Your task to perform on an android device: Empty the shopping cart on newegg. Search for "bose soundsport free" on newegg, select the first entry, and add it to the cart. Image 0: 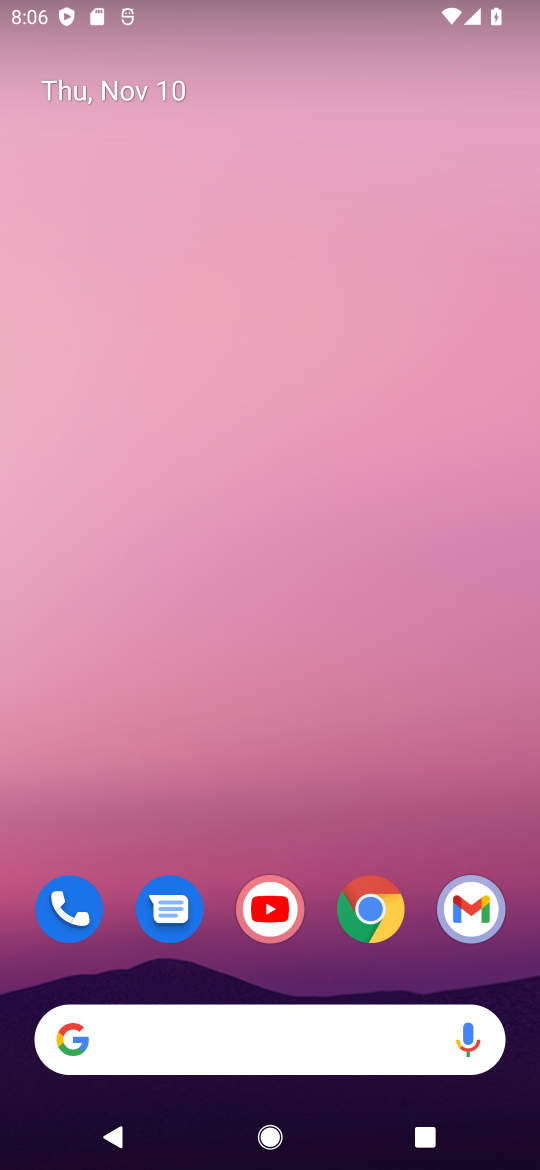
Step 0: drag from (138, 1034) to (205, 495)
Your task to perform on an android device: Empty the shopping cart on newegg. Search for "bose soundsport free" on newegg, select the first entry, and add it to the cart. Image 1: 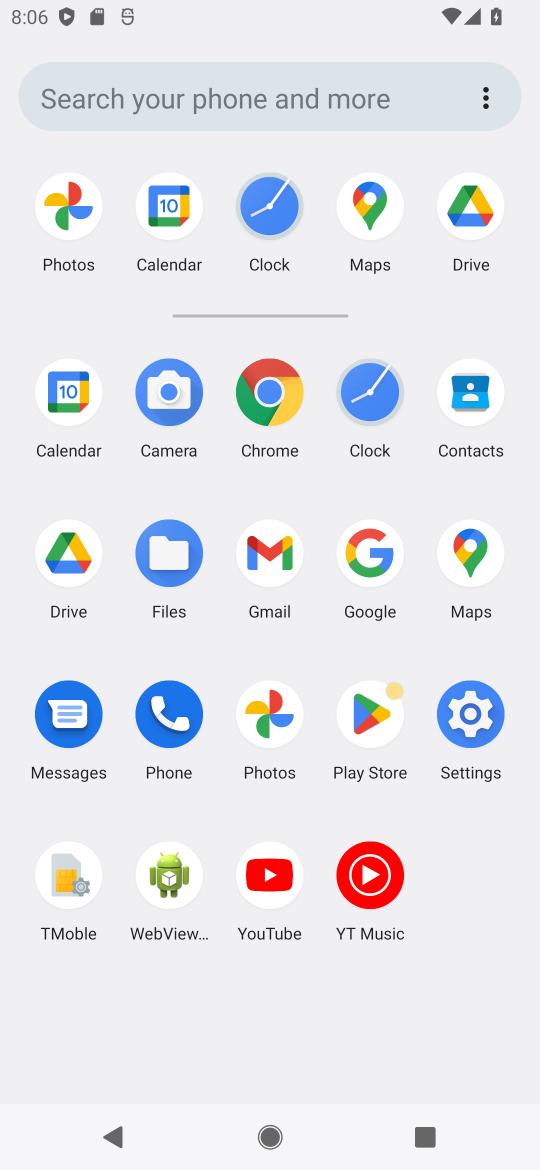
Step 1: click (363, 537)
Your task to perform on an android device: Empty the shopping cart on newegg. Search for "bose soundsport free" on newegg, select the first entry, and add it to the cart. Image 2: 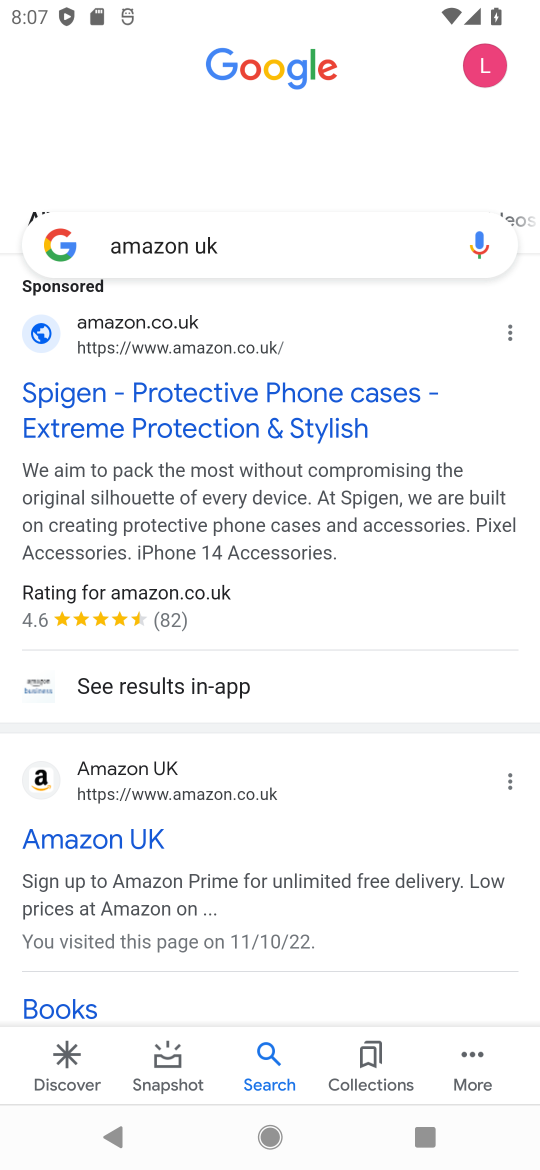
Step 2: click (296, 238)
Your task to perform on an android device: Empty the shopping cart on newegg. Search for "bose soundsport free" on newegg, select the first entry, and add it to the cart. Image 3: 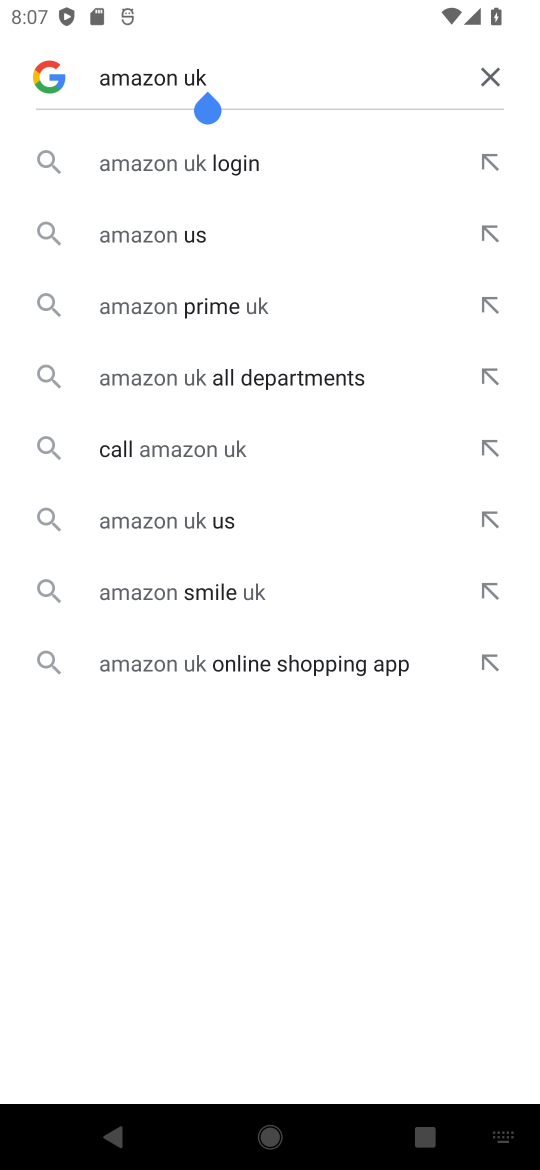
Step 3: click (485, 58)
Your task to perform on an android device: Empty the shopping cart on newegg. Search for "bose soundsport free" on newegg, select the first entry, and add it to the cart. Image 4: 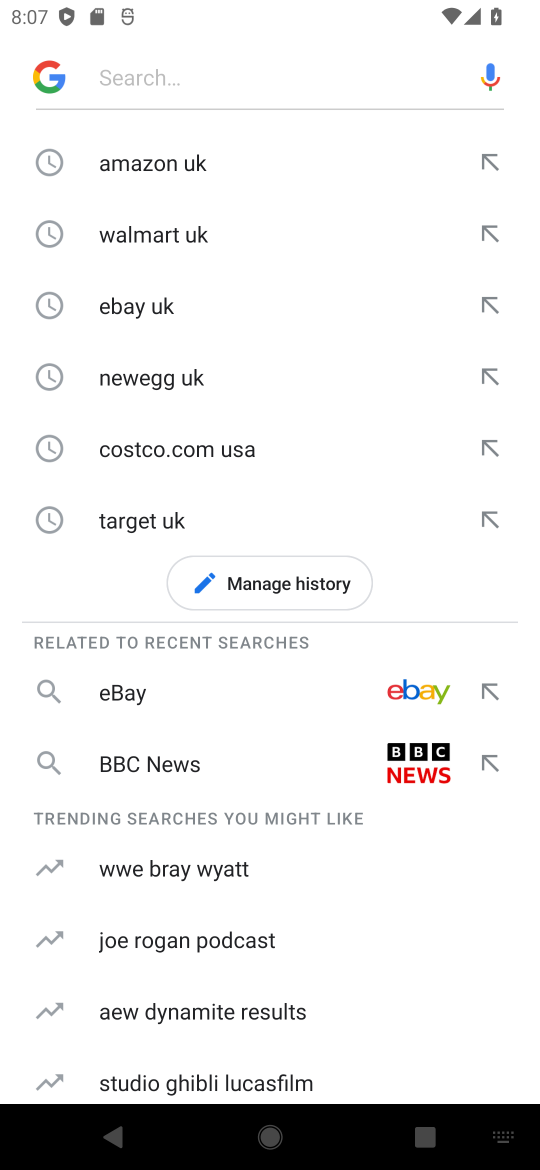
Step 4: click (229, 54)
Your task to perform on an android device: Empty the shopping cart on newegg. Search for "bose soundsport free" on newegg, select the first entry, and add it to the cart. Image 5: 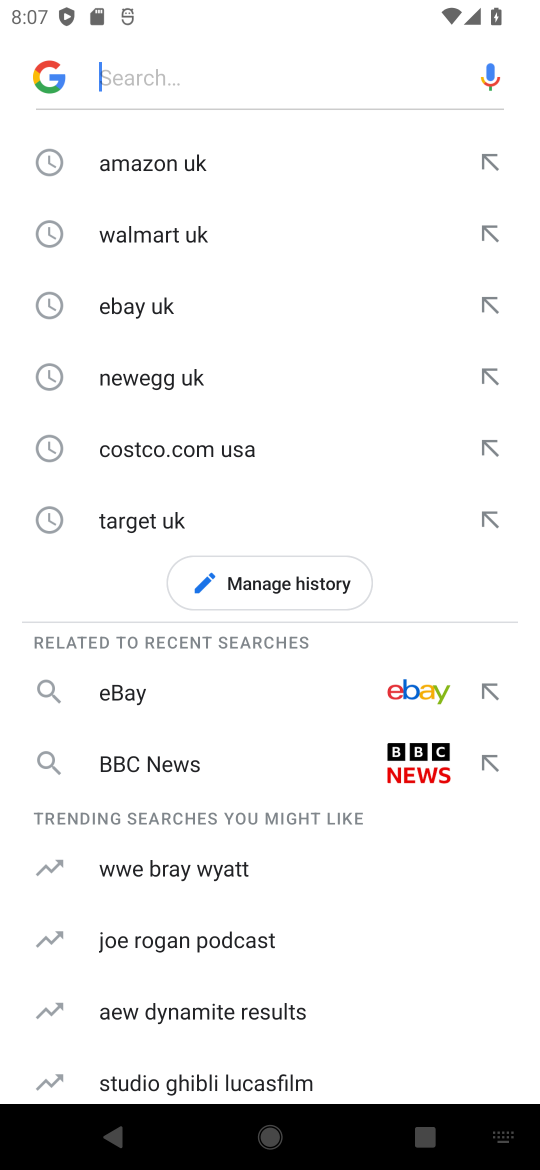
Step 5: type "newegg "
Your task to perform on an android device: Empty the shopping cart on newegg. Search for "bose soundsport free" on newegg, select the first entry, and add it to the cart. Image 6: 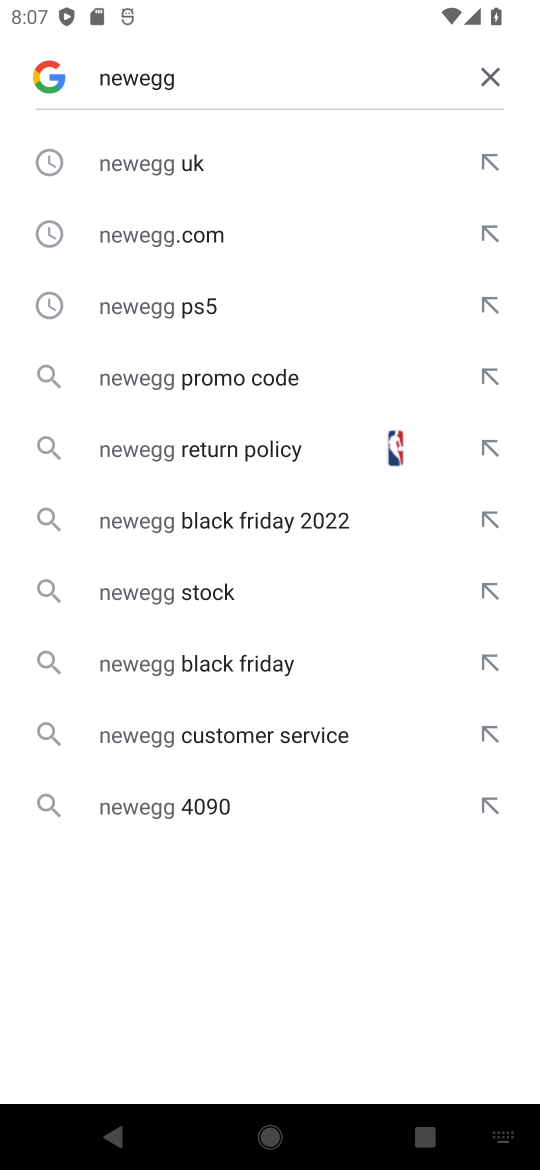
Step 6: click (186, 174)
Your task to perform on an android device: Empty the shopping cart on newegg. Search for "bose soundsport free" on newegg, select the first entry, and add it to the cart. Image 7: 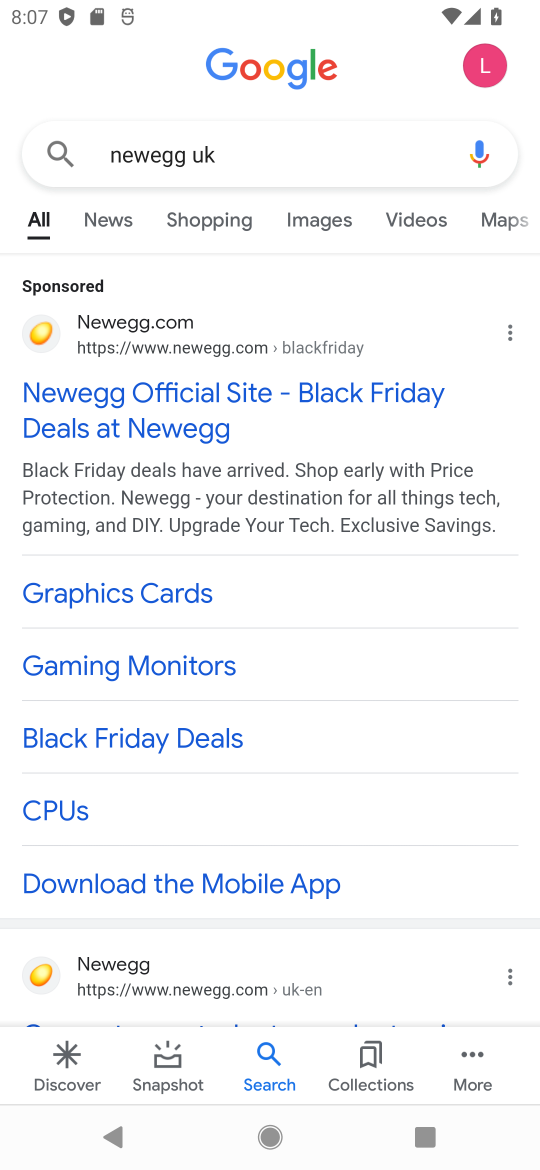
Step 7: click (42, 326)
Your task to perform on an android device: Empty the shopping cart on newegg. Search for "bose soundsport free" on newegg, select the first entry, and add it to the cart. Image 8: 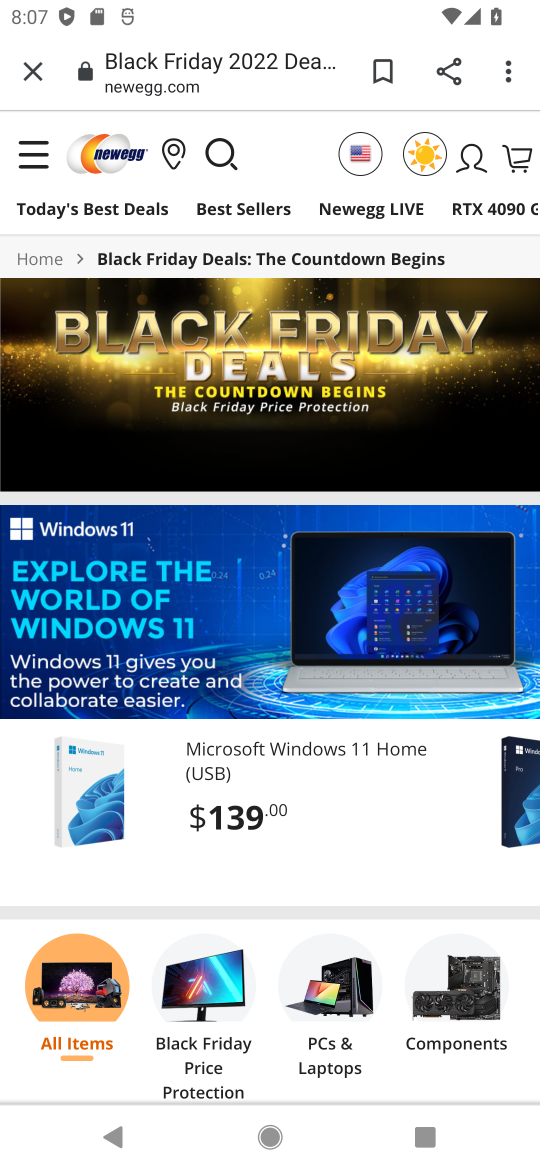
Step 8: click (210, 142)
Your task to perform on an android device: Empty the shopping cart on newegg. Search for "bose soundsport free" on newegg, select the first entry, and add it to the cart. Image 9: 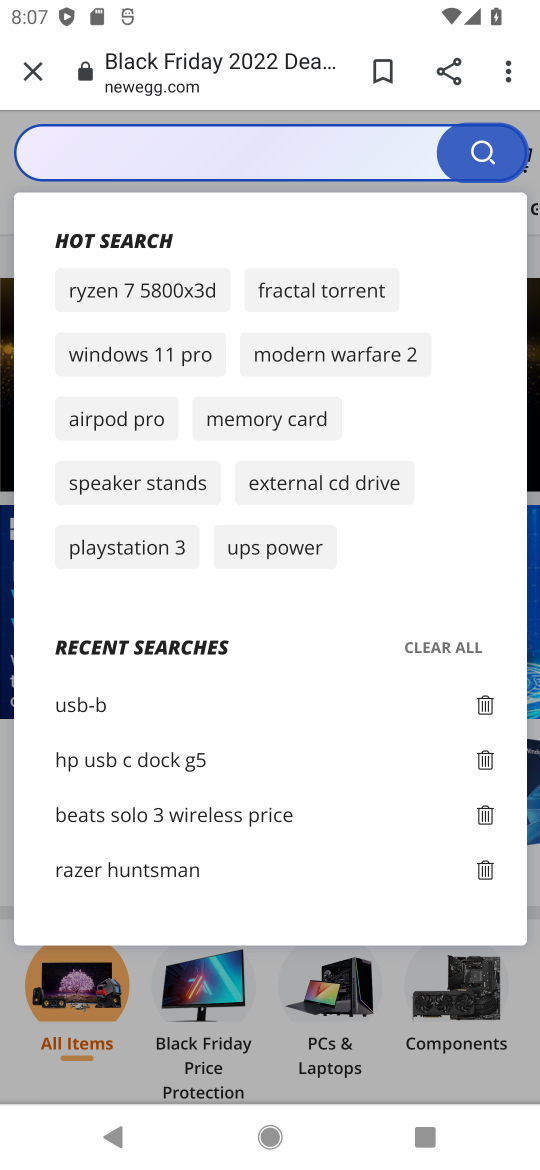
Step 9: click (289, 136)
Your task to perform on an android device: Empty the shopping cart on newegg. Search for "bose soundsport free" on newegg, select the first entry, and add it to the cart. Image 10: 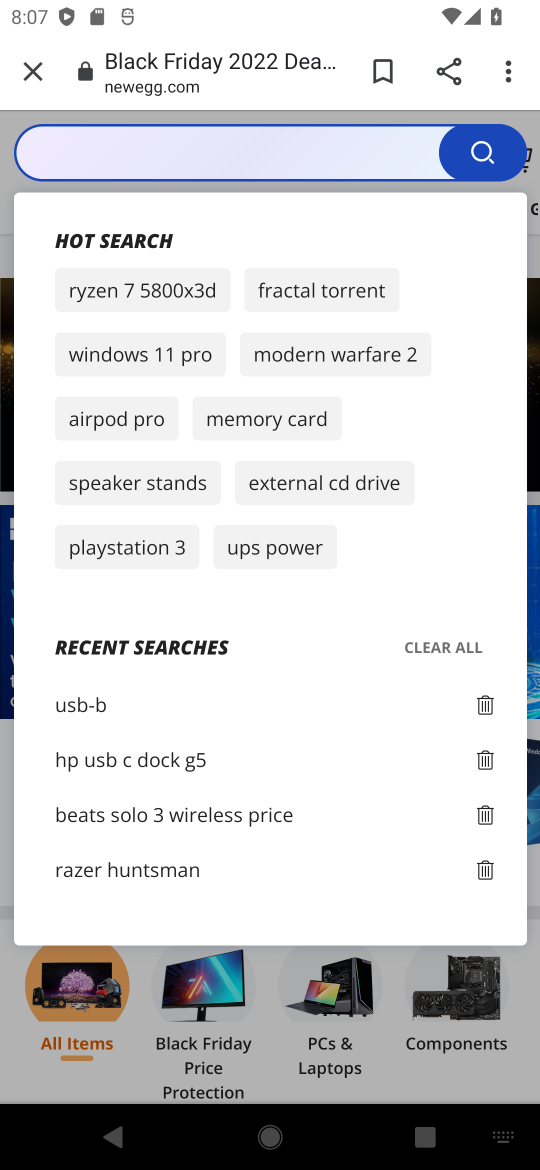
Step 10: type "bose soundsport free "
Your task to perform on an android device: Empty the shopping cart on newegg. Search for "bose soundsport free" on newegg, select the first entry, and add it to the cart. Image 11: 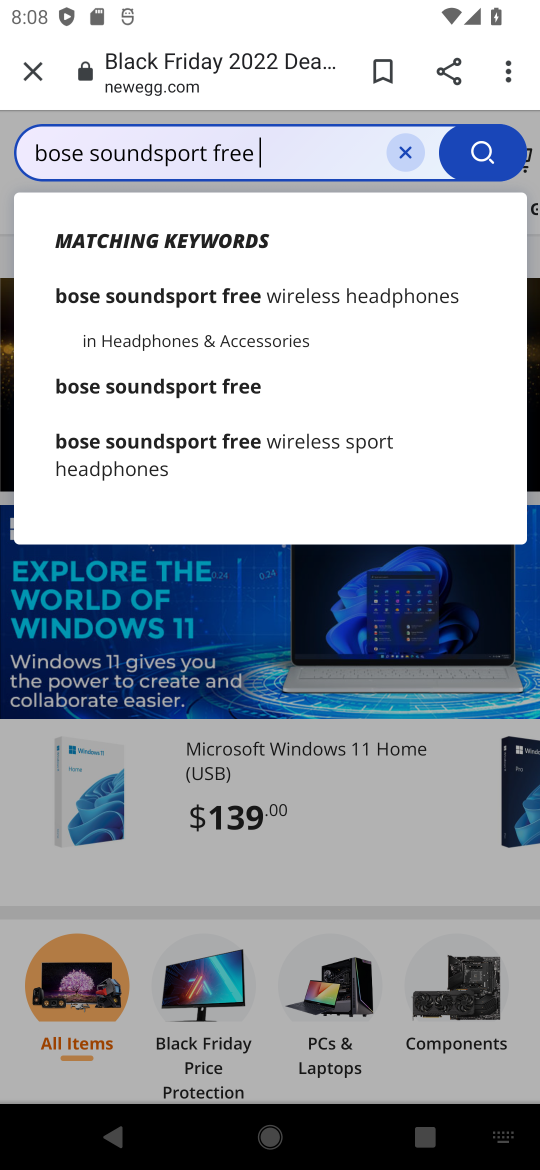
Step 11: click (217, 295)
Your task to perform on an android device: Empty the shopping cart on newegg. Search for "bose soundsport free" on newegg, select the first entry, and add it to the cart. Image 12: 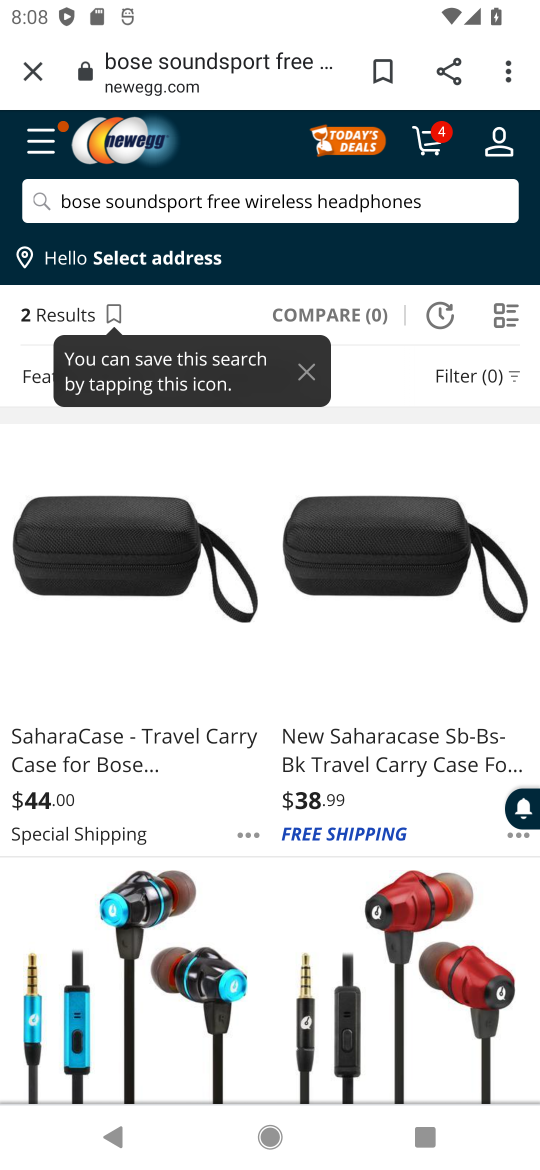
Step 12: drag from (219, 965) to (233, 315)
Your task to perform on an android device: Empty the shopping cart on newegg. Search for "bose soundsport free" on newegg, select the first entry, and add it to the cart. Image 13: 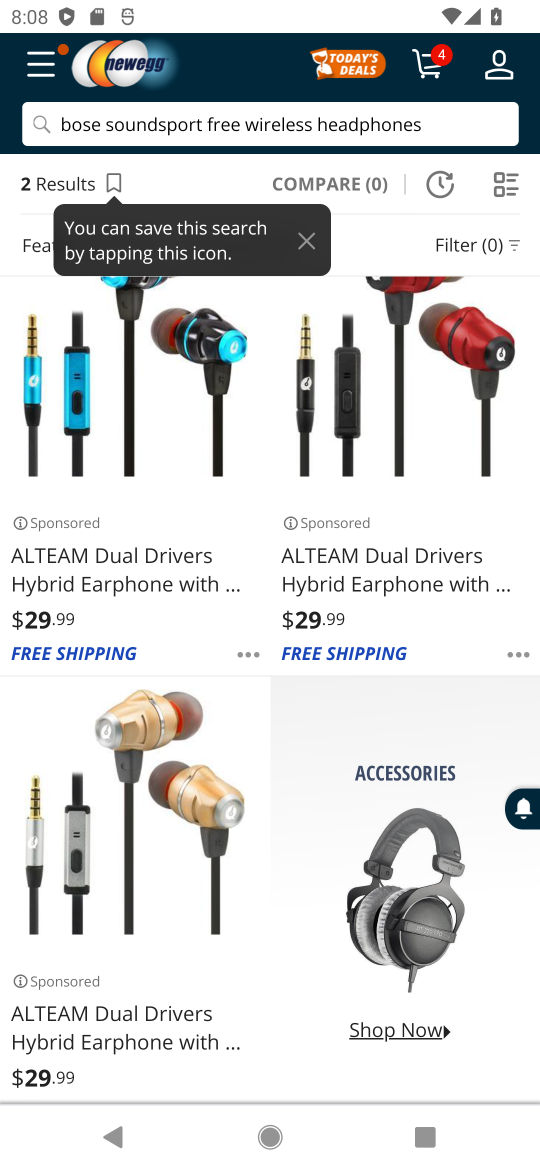
Step 13: drag from (278, 899) to (254, 264)
Your task to perform on an android device: Empty the shopping cart on newegg. Search for "bose soundsport free" on newegg, select the first entry, and add it to the cart. Image 14: 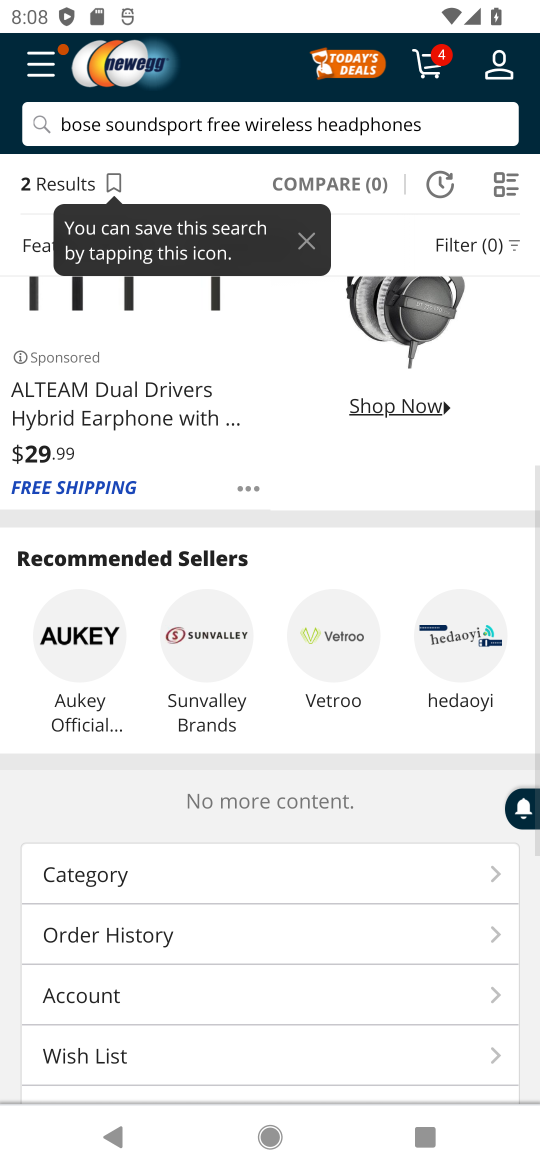
Step 14: drag from (329, 991) to (355, 239)
Your task to perform on an android device: Empty the shopping cart on newegg. Search for "bose soundsport free" on newegg, select the first entry, and add it to the cart. Image 15: 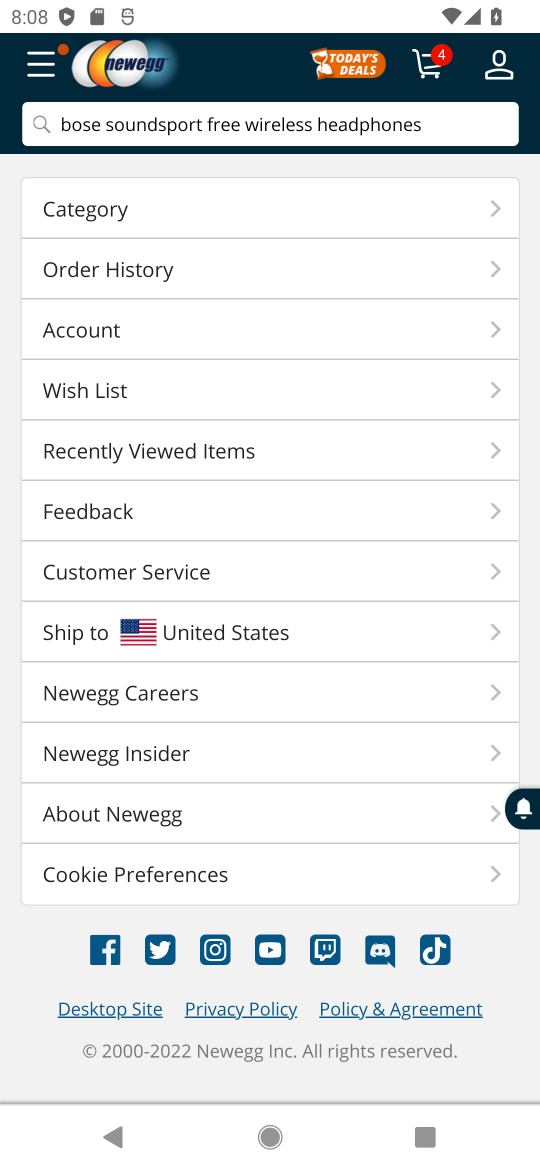
Step 15: click (445, 114)
Your task to perform on an android device: Empty the shopping cart on newegg. Search for "bose soundsport free" on newegg, select the first entry, and add it to the cart. Image 16: 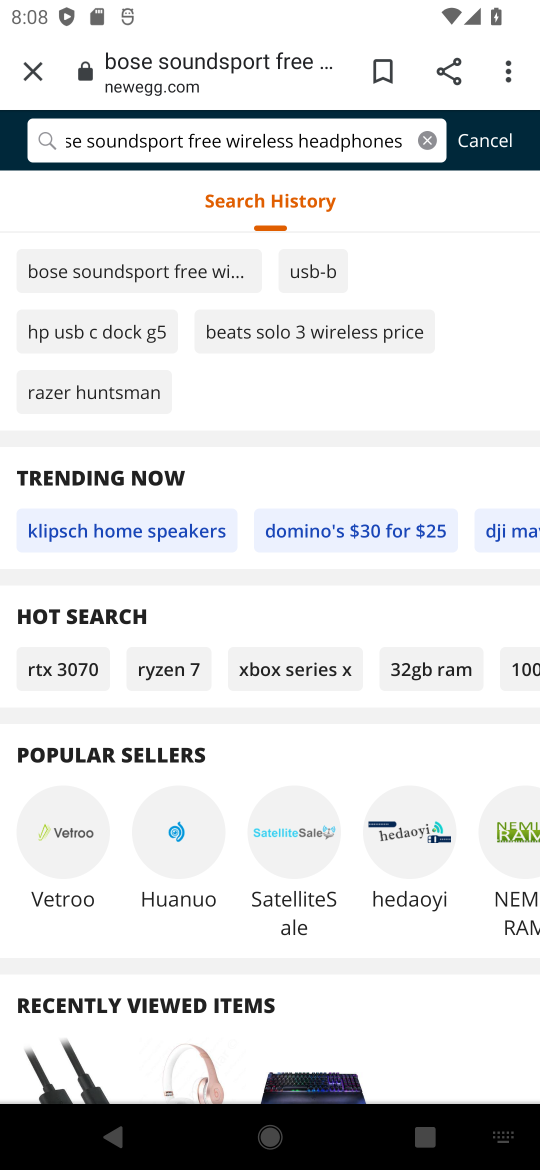
Step 16: click (424, 142)
Your task to perform on an android device: Empty the shopping cart on newegg. Search for "bose soundsport free" on newegg, select the first entry, and add it to the cart. Image 17: 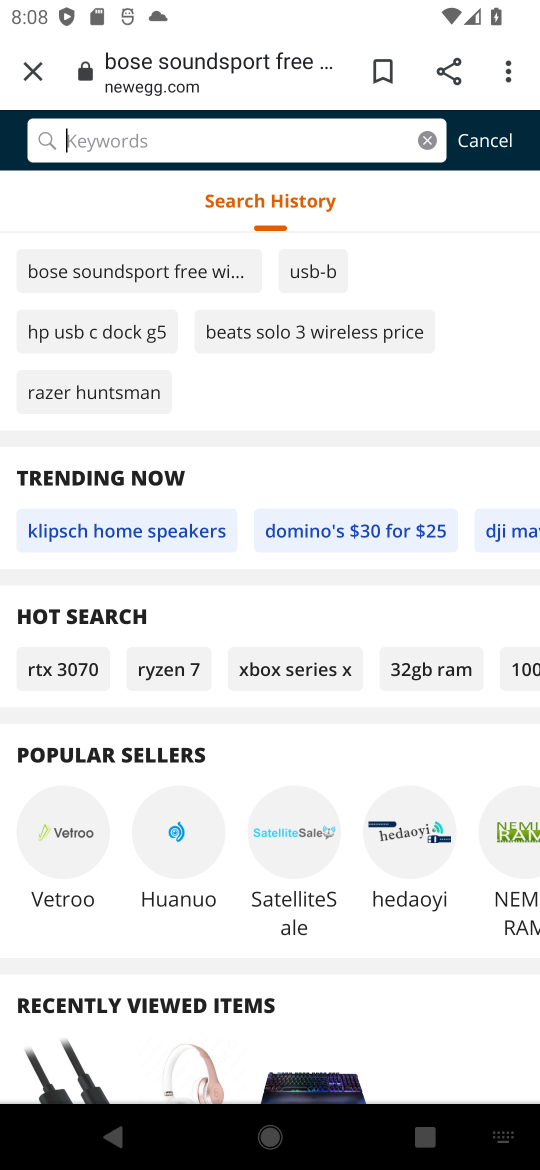
Step 17: click (236, 128)
Your task to perform on an android device: Empty the shopping cart on newegg. Search for "bose soundsport free" on newegg, select the first entry, and add it to the cart. Image 18: 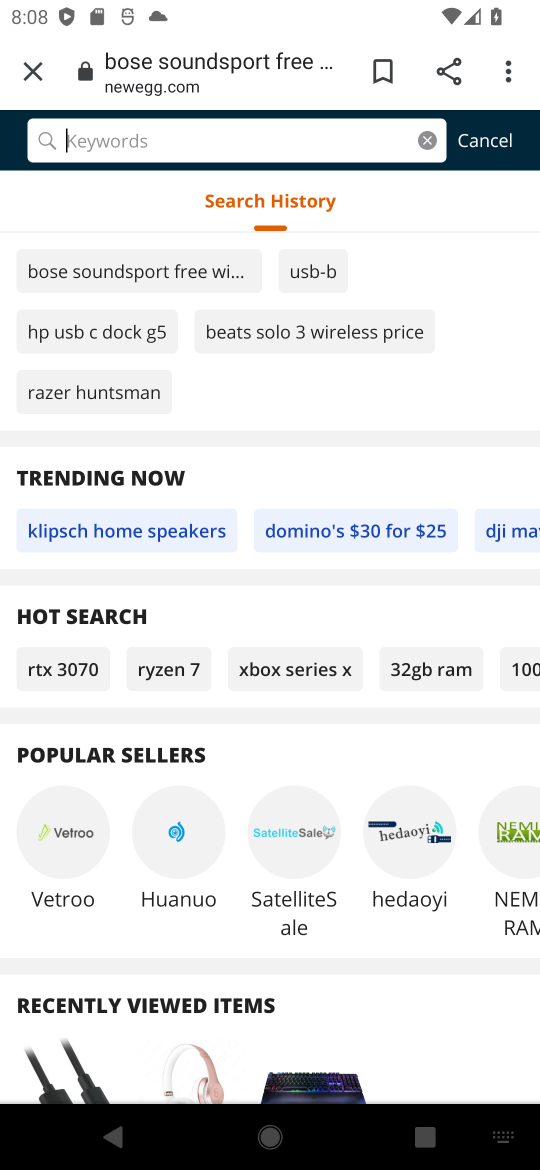
Step 18: type ""bose soundsport "
Your task to perform on an android device: Empty the shopping cart on newegg. Search for "bose soundsport free" on newegg, select the first entry, and add it to the cart. Image 19: 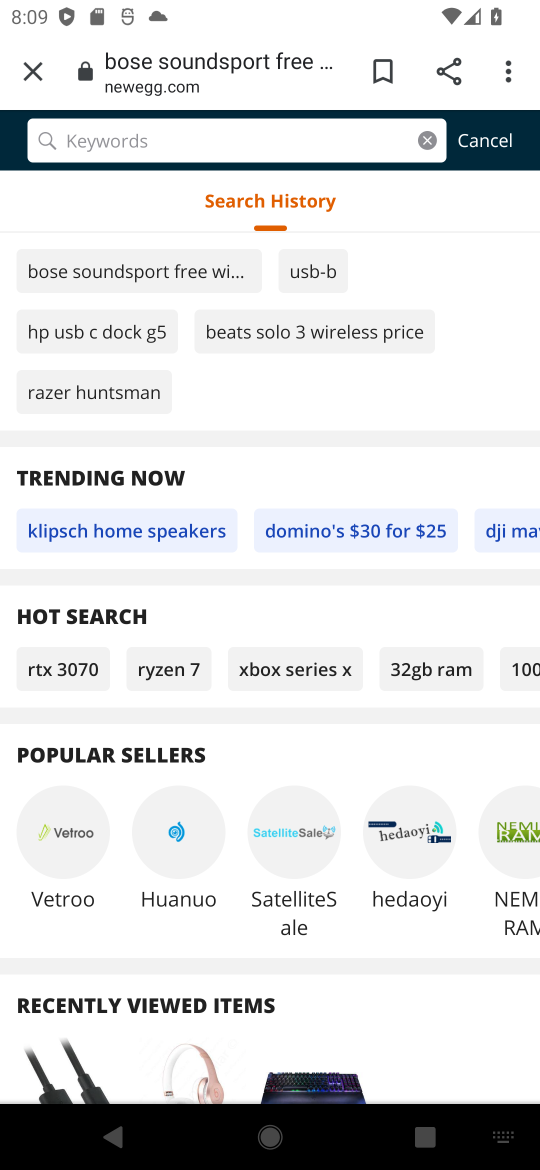
Step 19: click (250, 136)
Your task to perform on an android device: Empty the shopping cart on newegg. Search for "bose soundsport free" on newegg, select the first entry, and add it to the cart. Image 20: 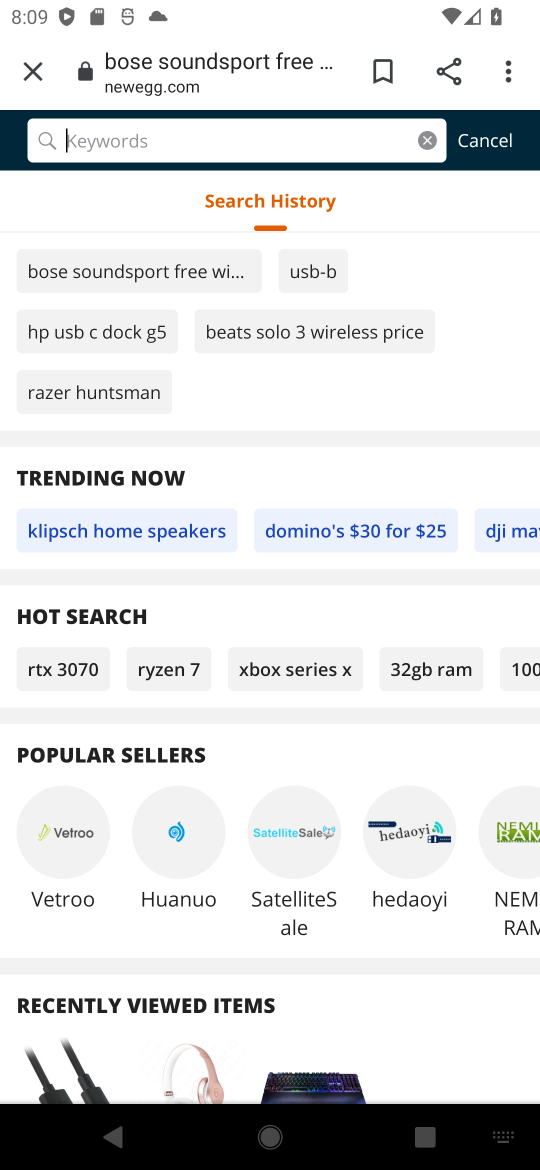
Step 20: click (236, 125)
Your task to perform on an android device: Empty the shopping cart on newegg. Search for "bose soundsport free" on newegg, select the first entry, and add it to the cart. Image 21: 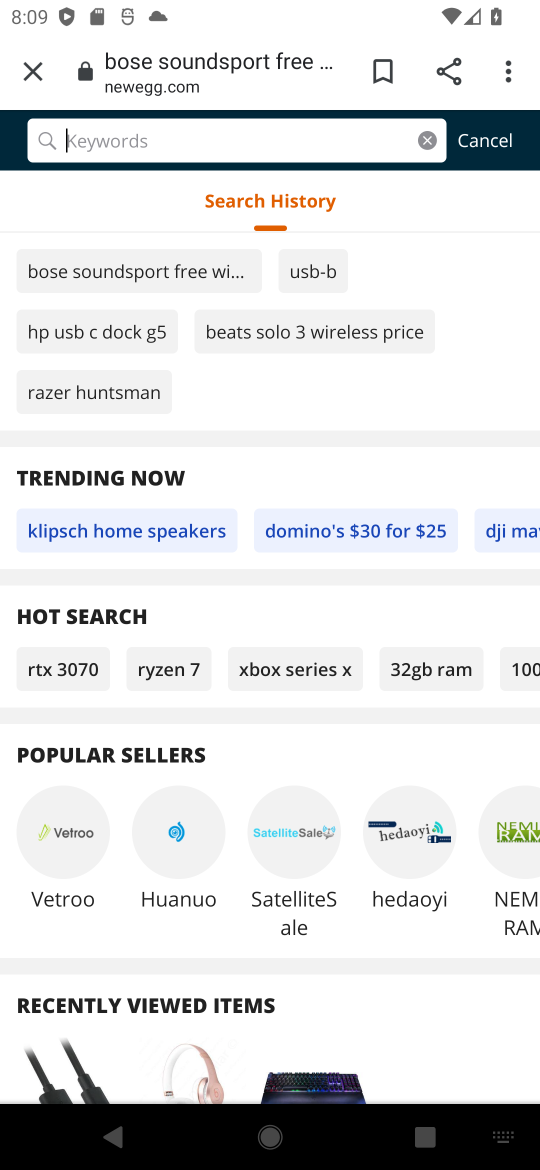
Step 21: type "bose soundsport "
Your task to perform on an android device: Empty the shopping cart on newegg. Search for "bose soundsport free" on newegg, select the first entry, and add it to the cart. Image 22: 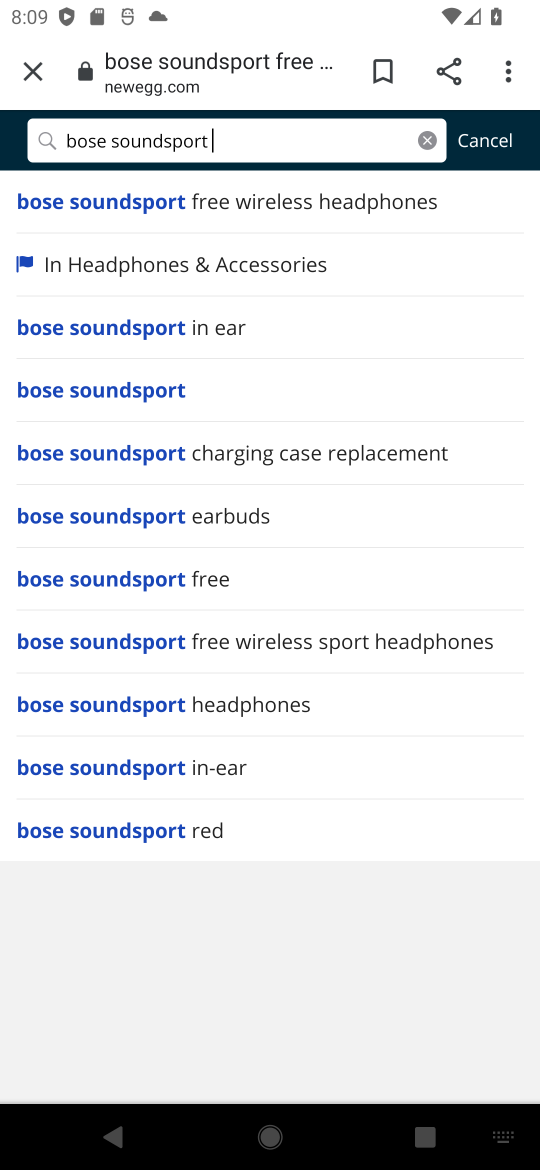
Step 22: click (159, 205)
Your task to perform on an android device: Empty the shopping cart on newegg. Search for "bose soundsport free" on newegg, select the first entry, and add it to the cart. Image 23: 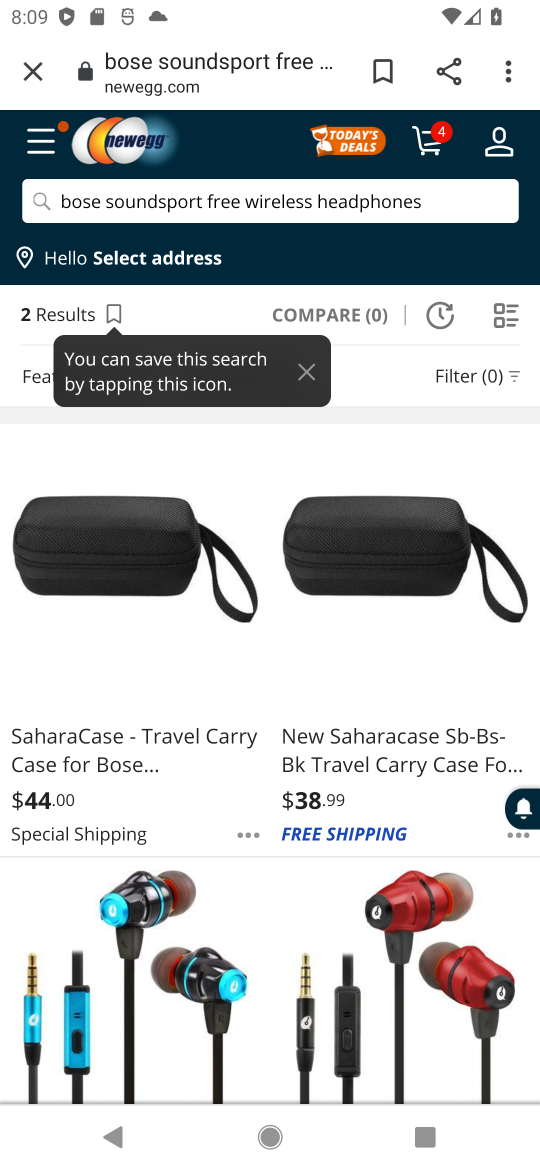
Step 23: click (125, 591)
Your task to perform on an android device: Empty the shopping cart on newegg. Search for "bose soundsport free" on newegg, select the first entry, and add it to the cart. Image 24: 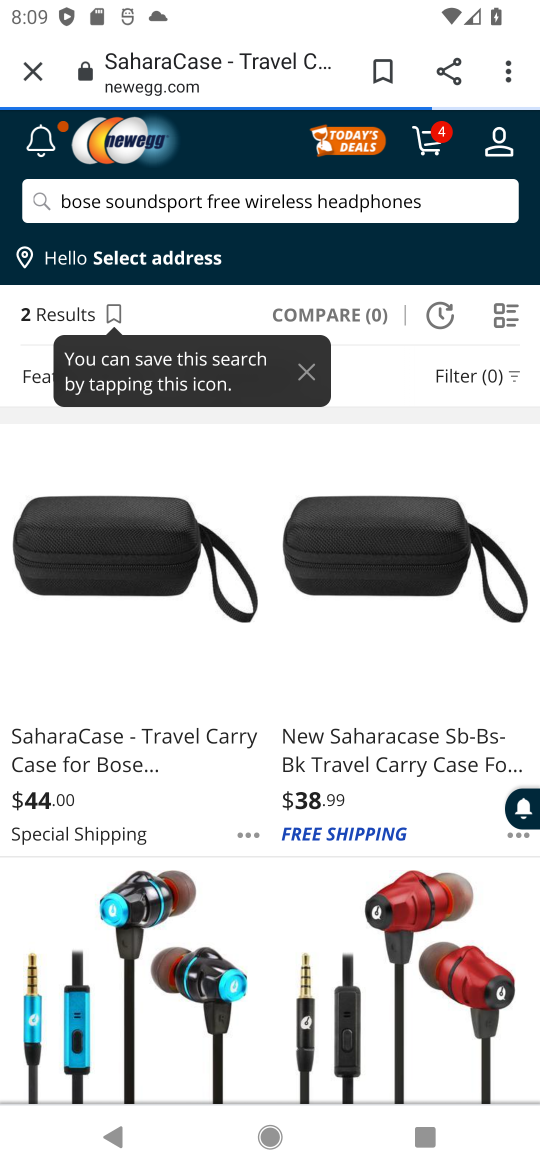
Step 24: click (147, 752)
Your task to perform on an android device: Empty the shopping cart on newegg. Search for "bose soundsport free" on newegg, select the first entry, and add it to the cart. Image 25: 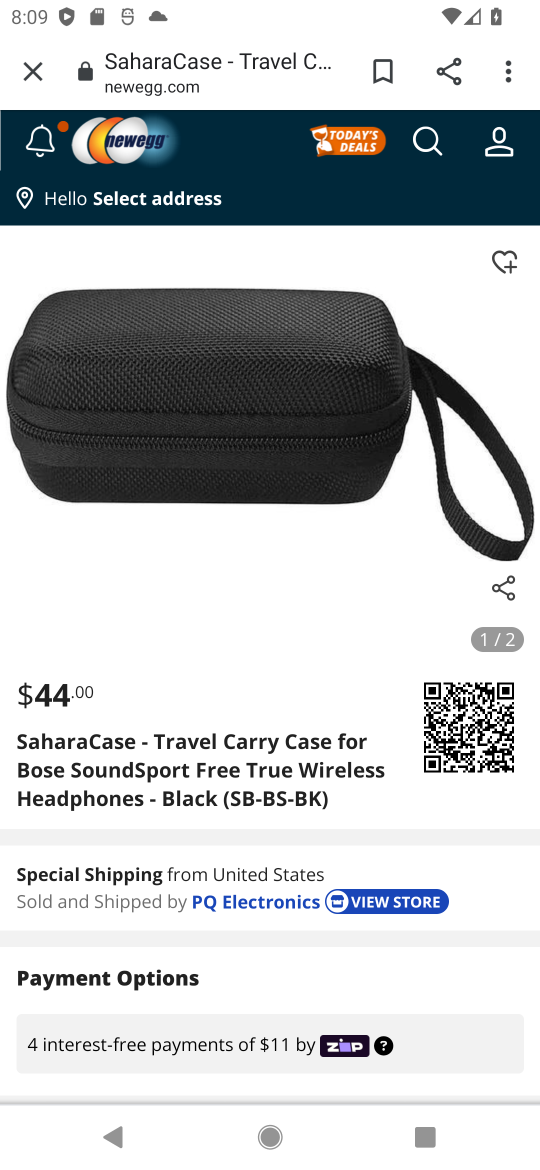
Step 25: click (254, 1057)
Your task to perform on an android device: Empty the shopping cart on newegg. Search for "bose soundsport free" on newegg, select the first entry, and add it to the cart. Image 26: 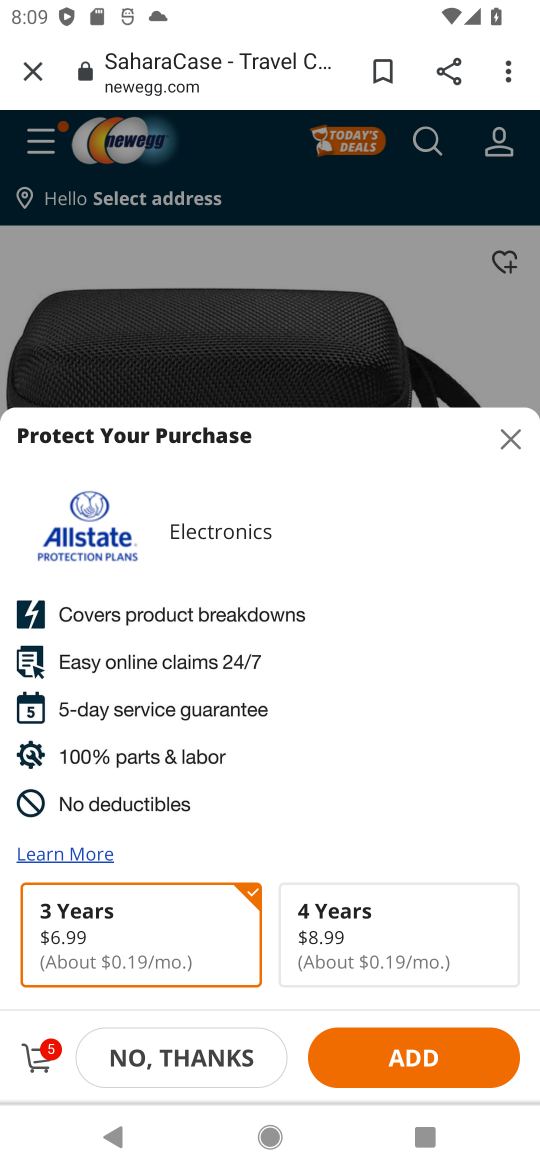
Step 26: task complete